Your task to perform on an android device: Show me productivity apps on the Play Store Image 0: 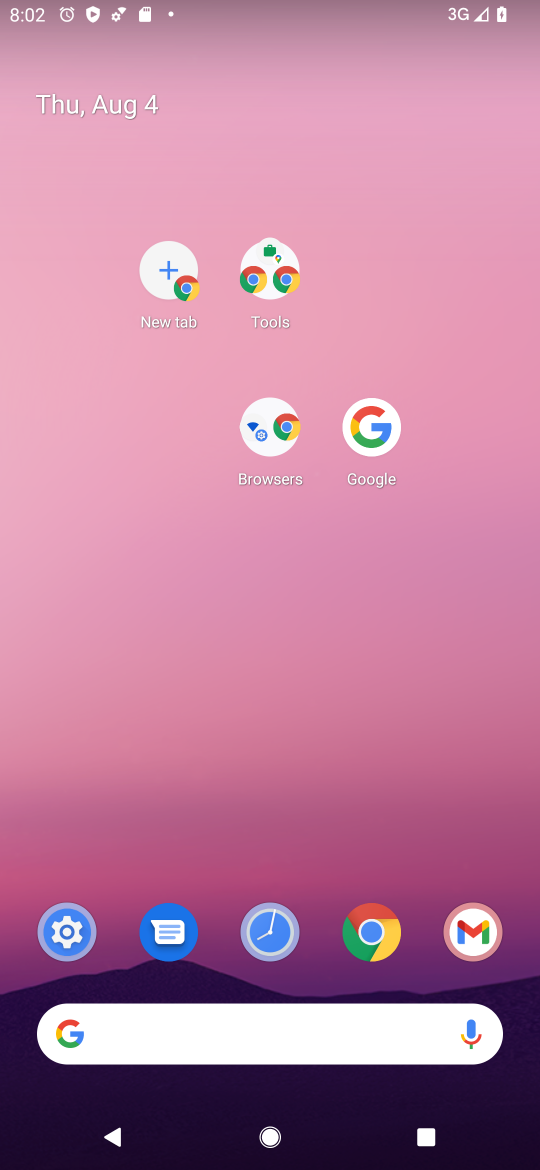
Step 0: drag from (115, 186) to (242, 195)
Your task to perform on an android device: Show me productivity apps on the Play Store Image 1: 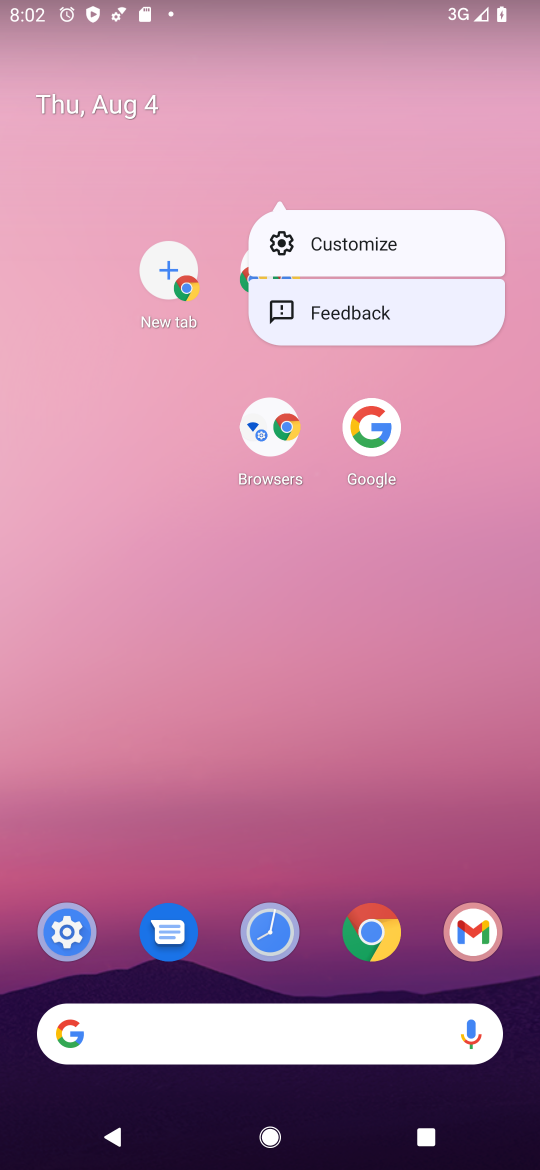
Step 1: click (255, 480)
Your task to perform on an android device: Show me productivity apps on the Play Store Image 2: 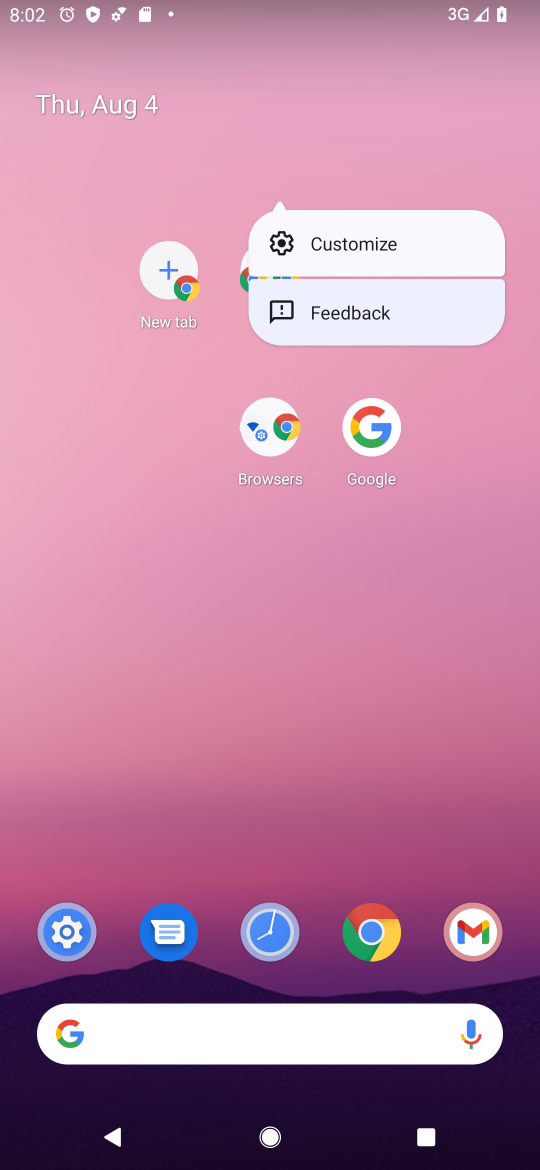
Step 2: drag from (302, 951) to (146, 510)
Your task to perform on an android device: Show me productivity apps on the Play Store Image 3: 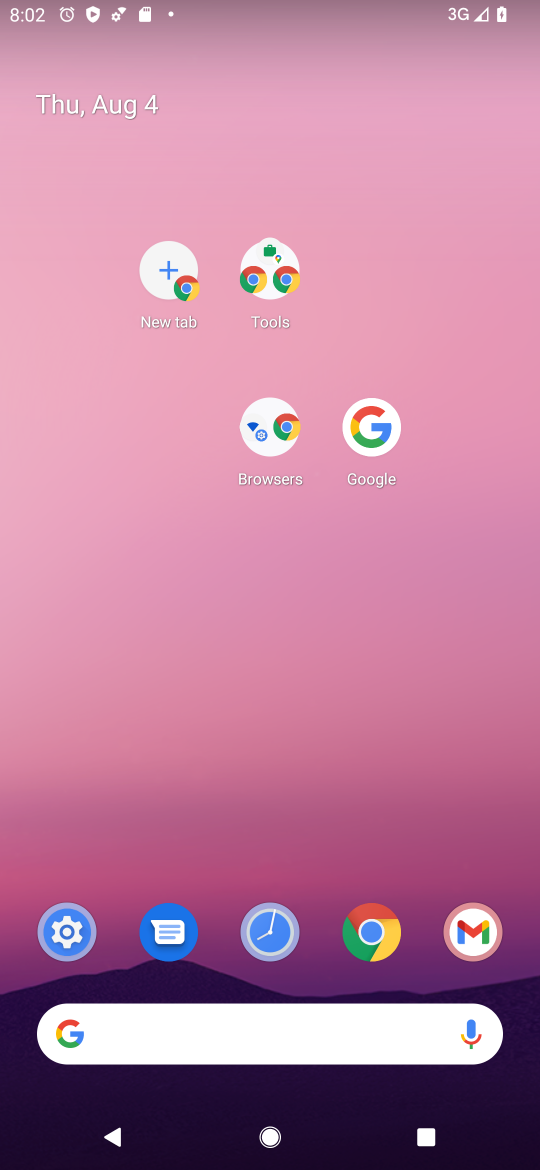
Step 3: drag from (249, 766) to (249, 558)
Your task to perform on an android device: Show me productivity apps on the Play Store Image 4: 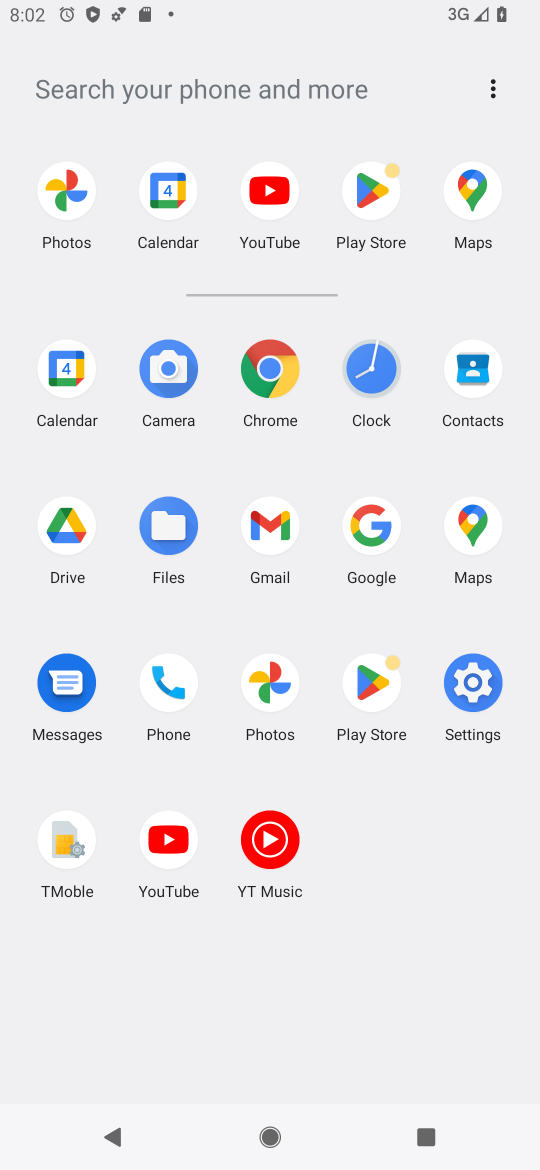
Step 4: click (390, 692)
Your task to perform on an android device: Show me productivity apps on the Play Store Image 5: 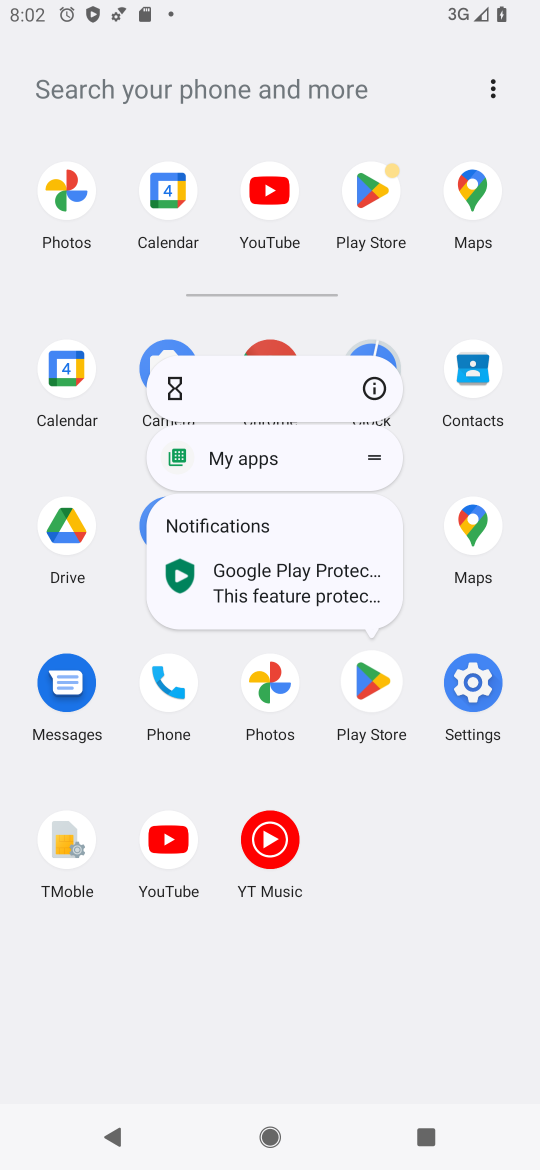
Step 5: click (356, 674)
Your task to perform on an android device: Show me productivity apps on the Play Store Image 6: 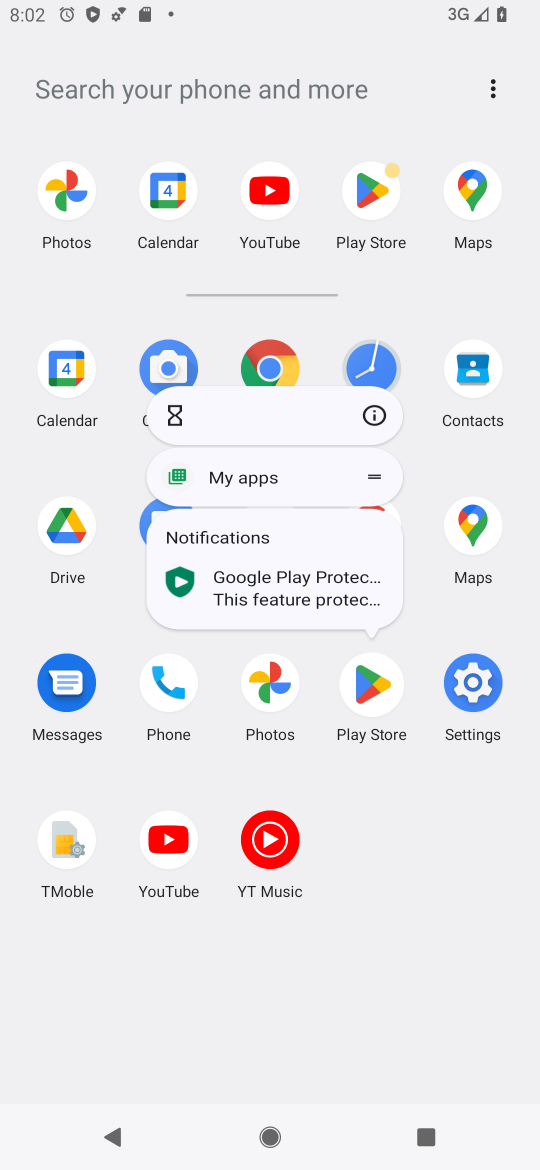
Step 6: click (358, 677)
Your task to perform on an android device: Show me productivity apps on the Play Store Image 7: 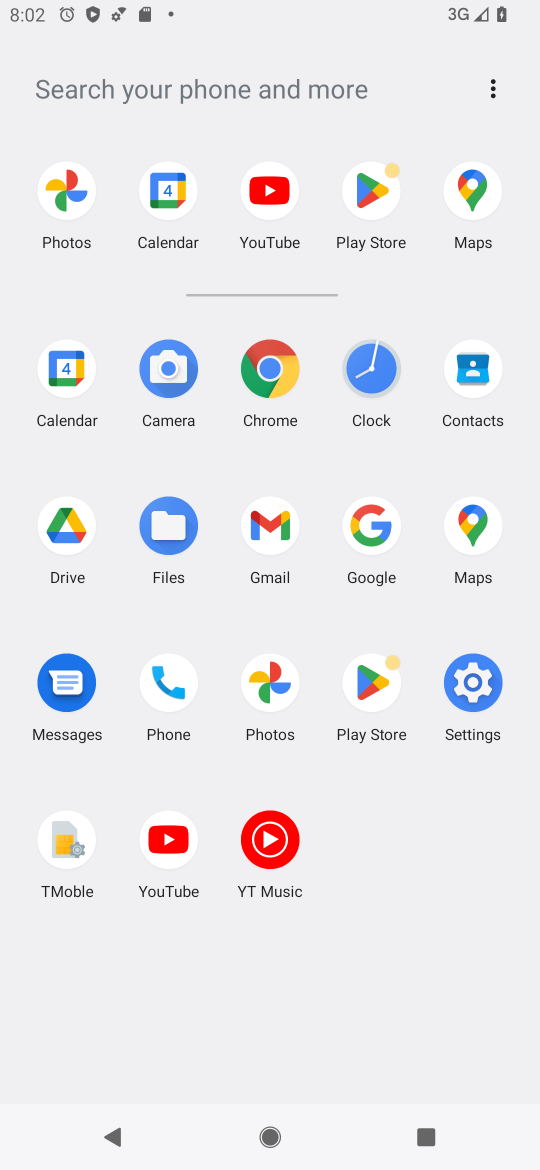
Step 7: click (364, 674)
Your task to perform on an android device: Show me productivity apps on the Play Store Image 8: 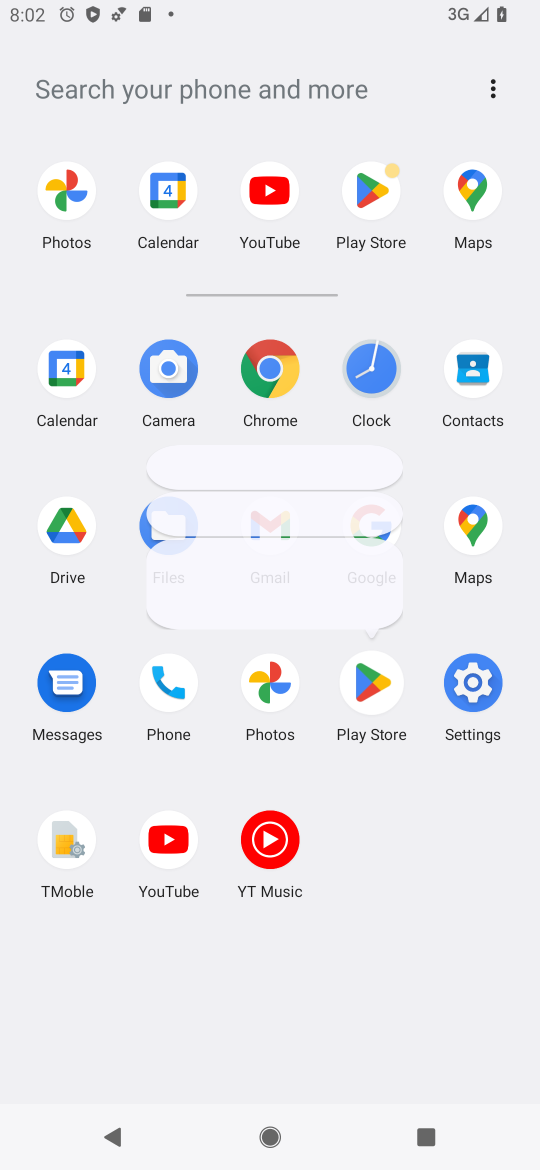
Step 8: click (367, 677)
Your task to perform on an android device: Show me productivity apps on the Play Store Image 9: 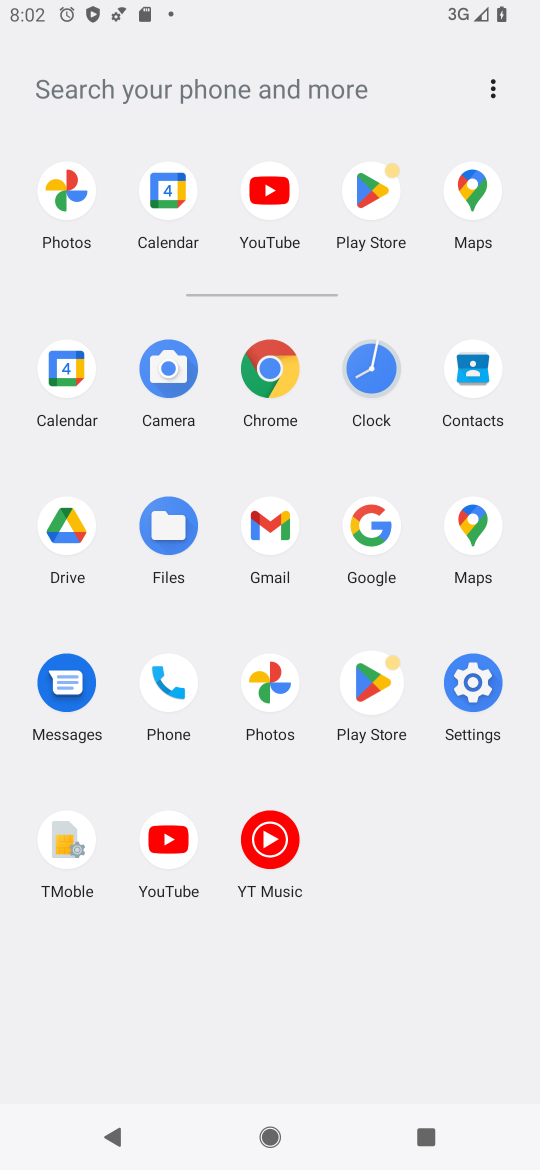
Step 9: click (380, 659)
Your task to perform on an android device: Show me productivity apps on the Play Store Image 10: 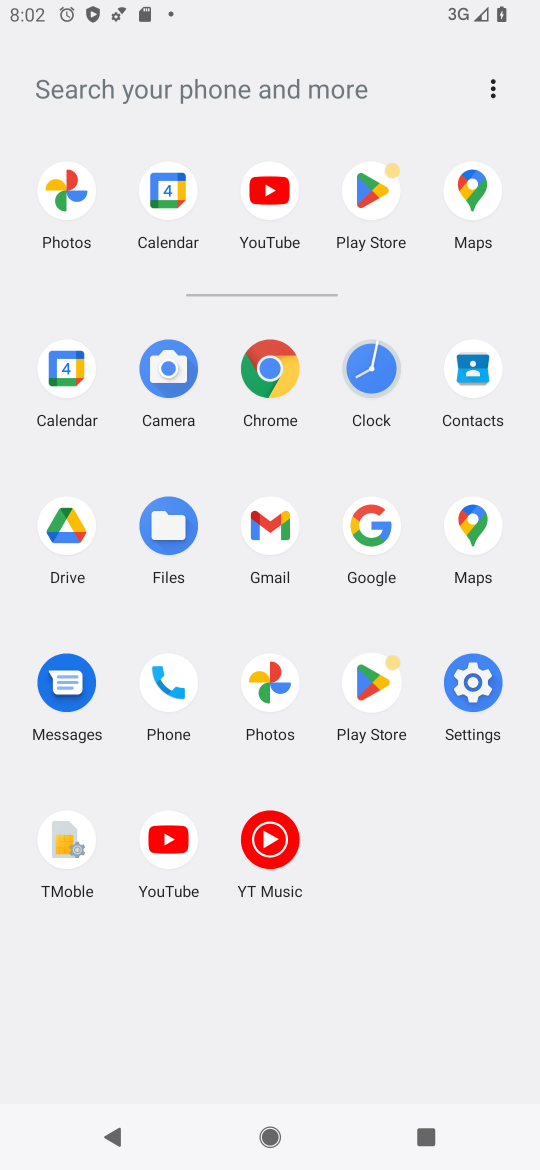
Step 10: click (380, 672)
Your task to perform on an android device: Show me productivity apps on the Play Store Image 11: 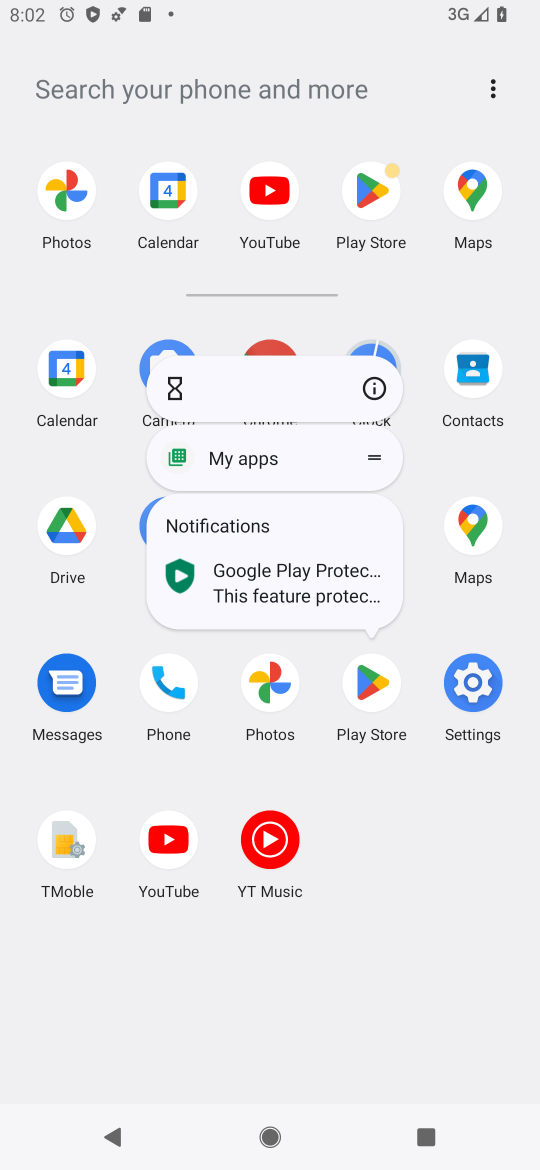
Step 11: click (355, 692)
Your task to perform on an android device: Show me productivity apps on the Play Store Image 12: 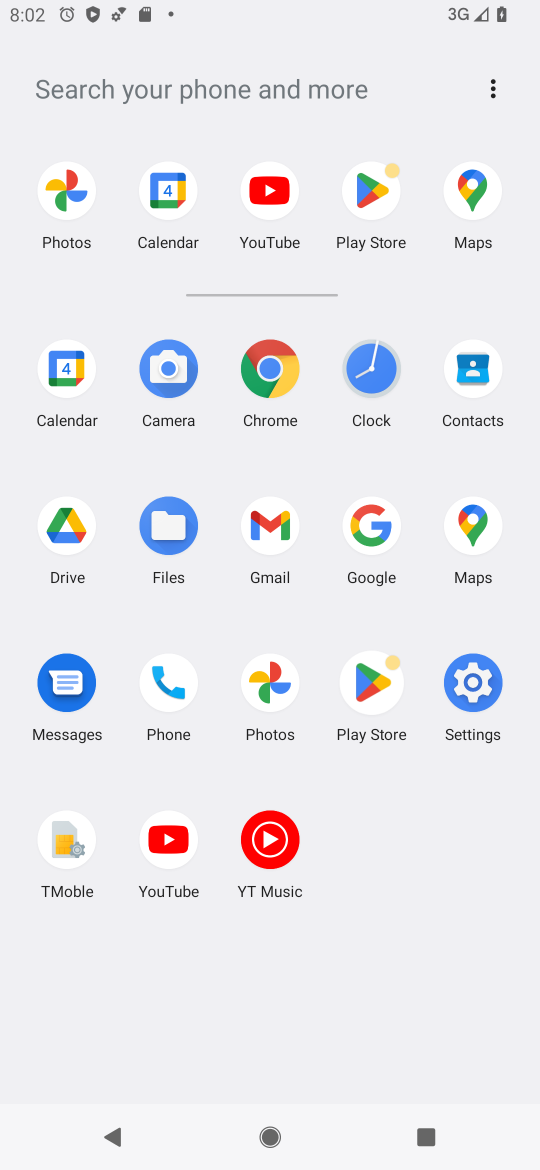
Step 12: click (259, 467)
Your task to perform on an android device: Show me productivity apps on the Play Store Image 13: 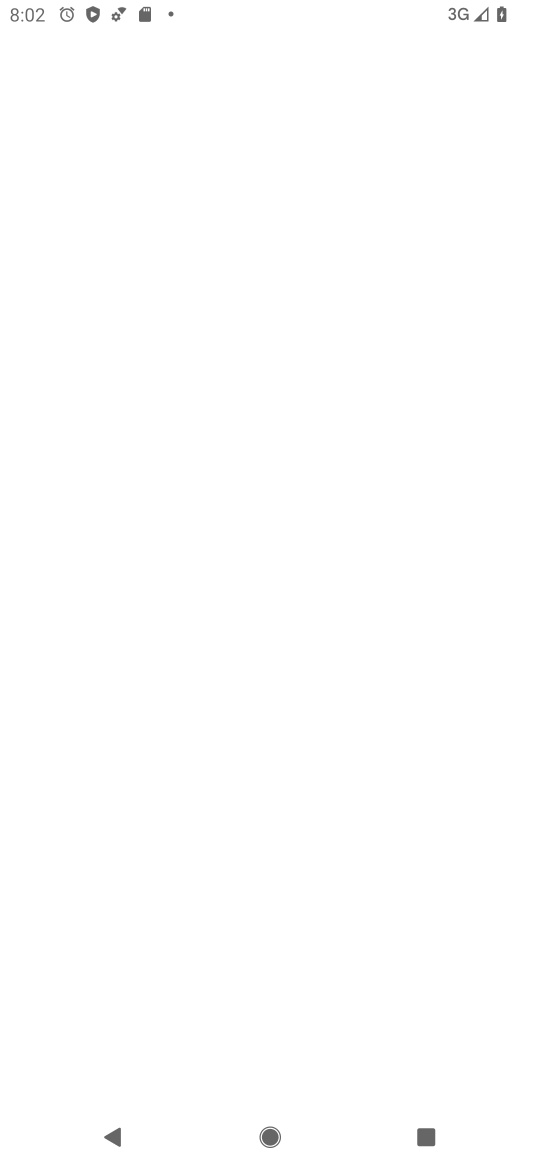
Step 13: click (361, 689)
Your task to perform on an android device: Show me productivity apps on the Play Store Image 14: 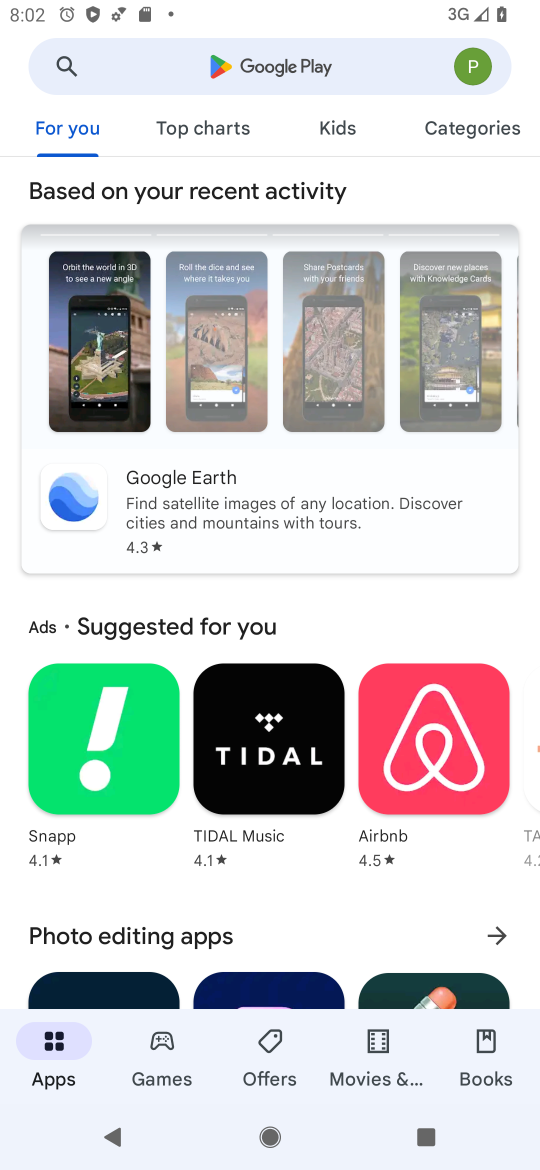
Step 14: click (228, 76)
Your task to perform on an android device: Show me productivity apps on the Play Store Image 15: 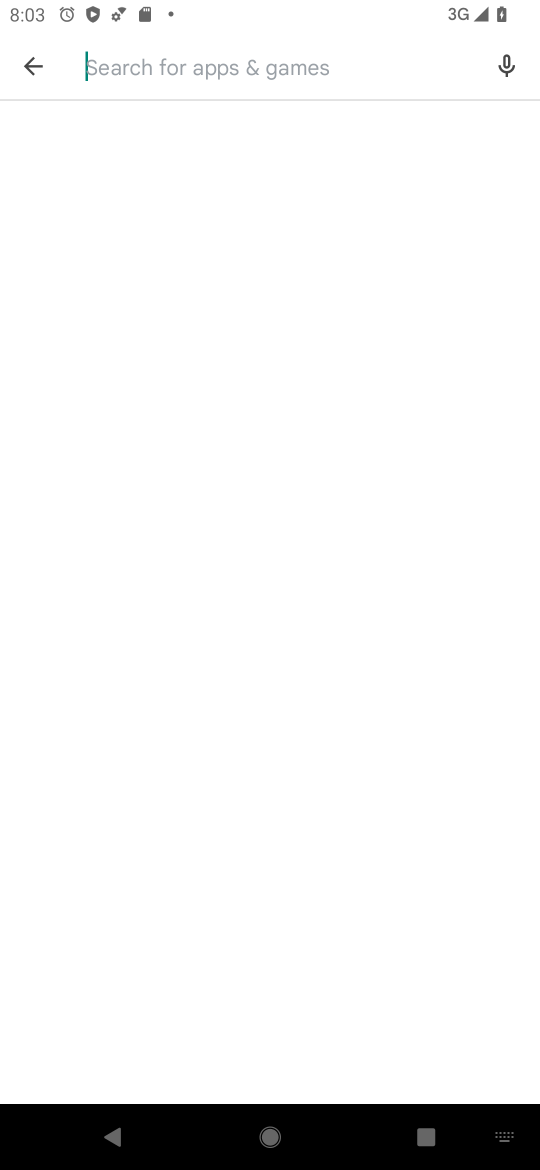
Step 15: type "productivity apps"
Your task to perform on an android device: Show me productivity apps on the Play Store Image 16: 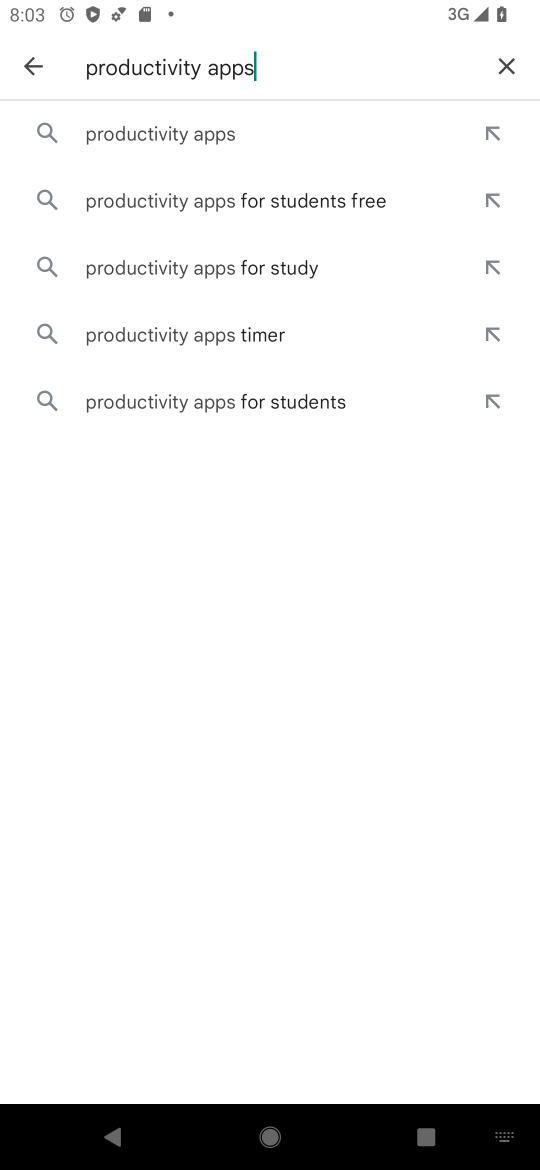
Step 16: click (118, 129)
Your task to perform on an android device: Show me productivity apps on the Play Store Image 17: 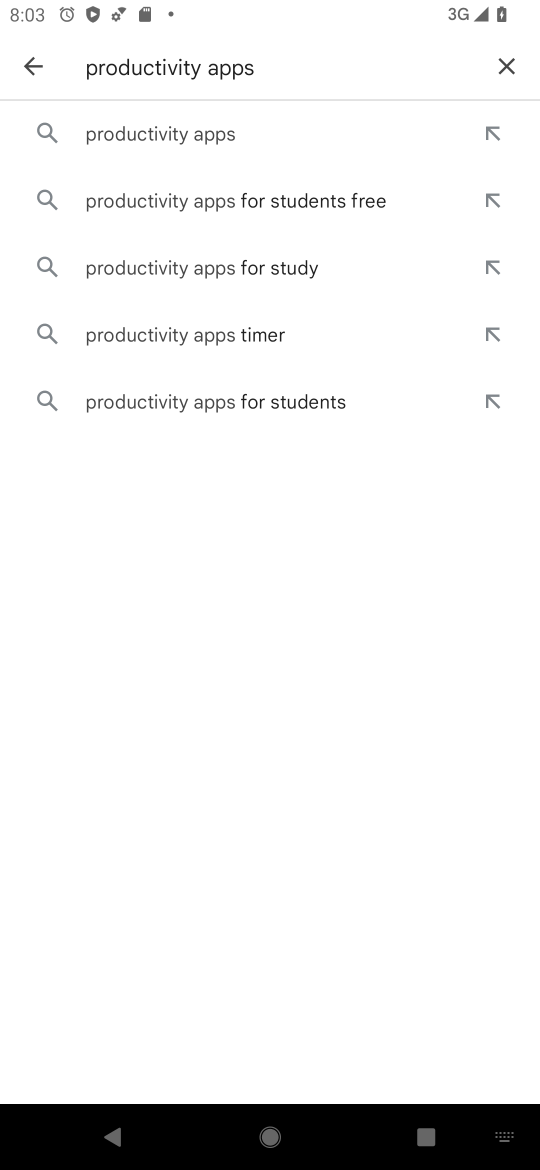
Step 17: click (118, 129)
Your task to perform on an android device: Show me productivity apps on the Play Store Image 18: 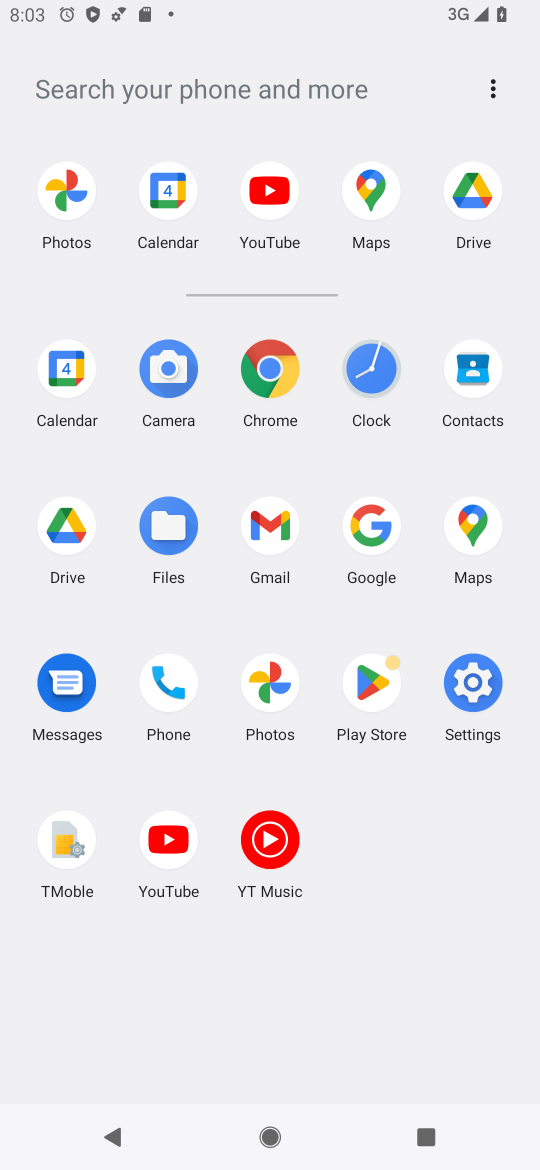
Step 18: task complete